Your task to perform on an android device: Is it going to rain today? Image 0: 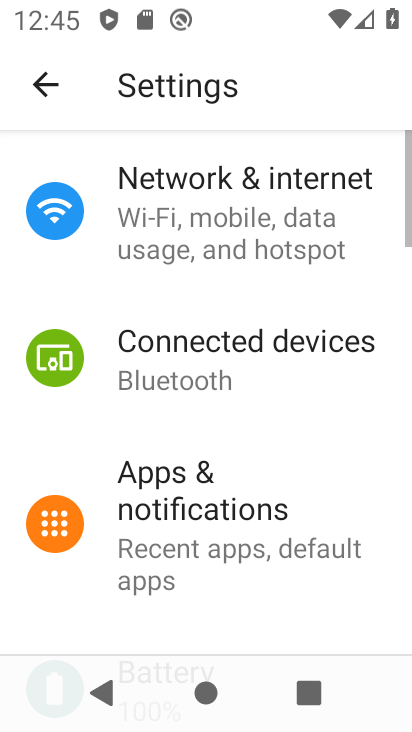
Step 0: press home button
Your task to perform on an android device: Is it going to rain today? Image 1: 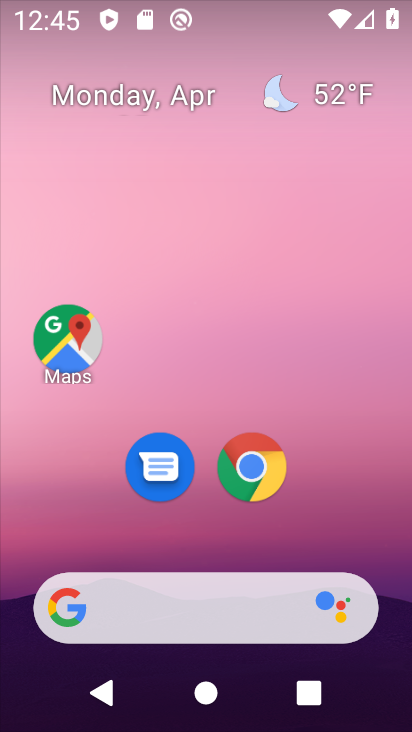
Step 1: drag from (191, 474) to (191, 74)
Your task to perform on an android device: Is it going to rain today? Image 2: 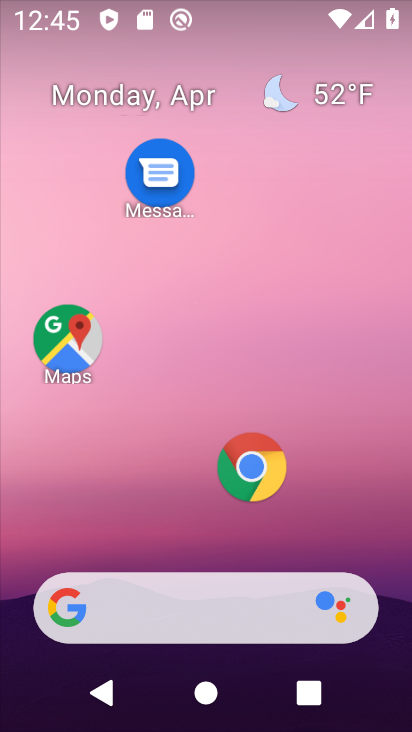
Step 2: click (308, 301)
Your task to perform on an android device: Is it going to rain today? Image 3: 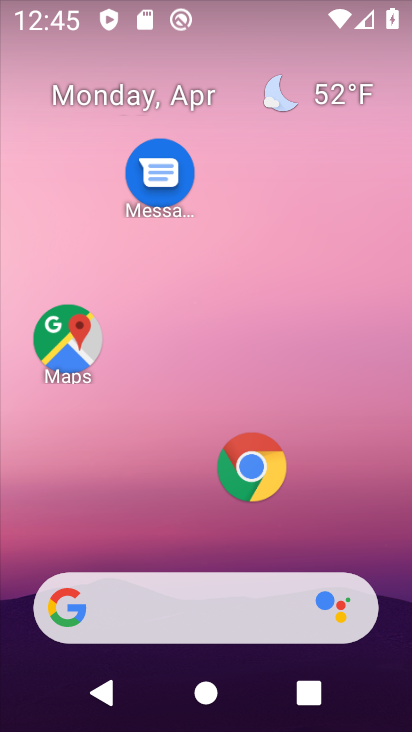
Step 3: drag from (189, 537) to (206, 124)
Your task to perform on an android device: Is it going to rain today? Image 4: 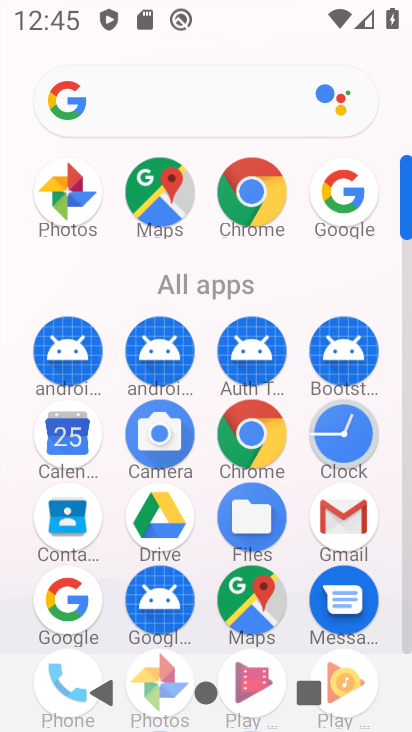
Step 4: click (81, 592)
Your task to perform on an android device: Is it going to rain today? Image 5: 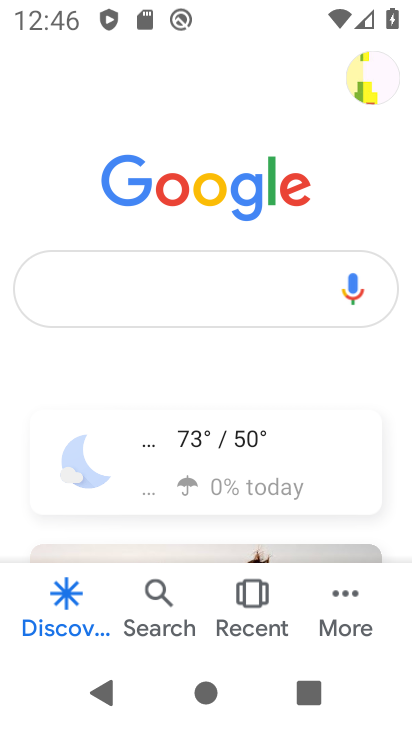
Step 5: click (224, 435)
Your task to perform on an android device: Is it going to rain today? Image 6: 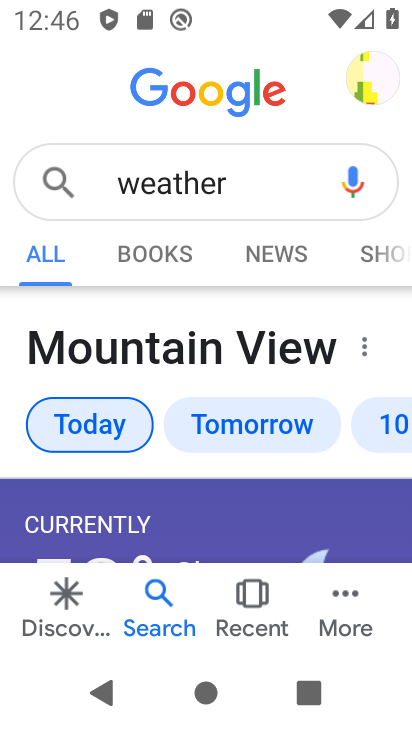
Step 6: task complete